Your task to perform on an android device: Open the phone app and click the voicemail tab. Image 0: 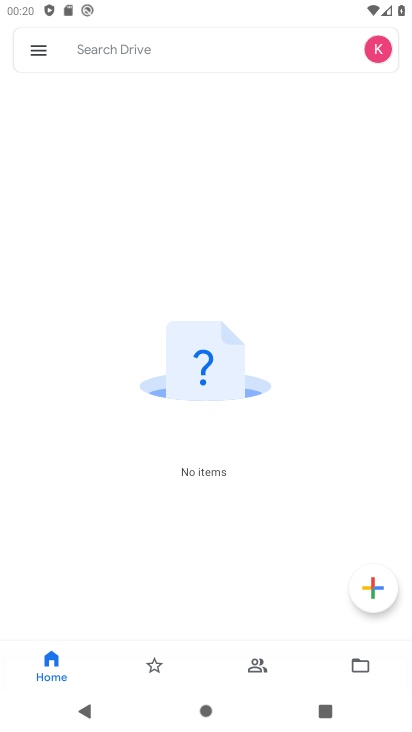
Step 0: press home button
Your task to perform on an android device: Open the phone app and click the voicemail tab. Image 1: 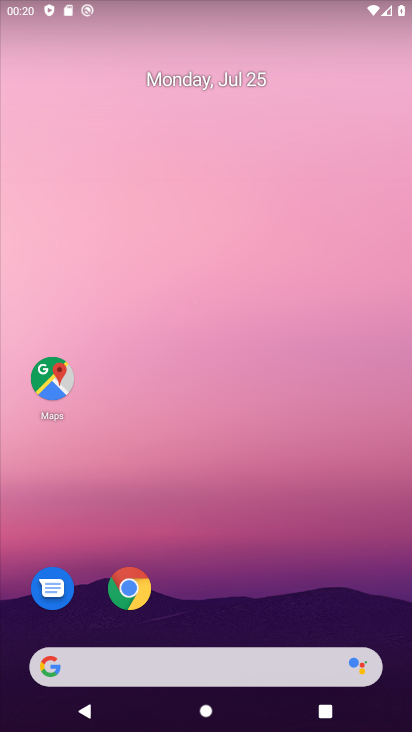
Step 1: drag from (198, 620) to (32, 654)
Your task to perform on an android device: Open the phone app and click the voicemail tab. Image 2: 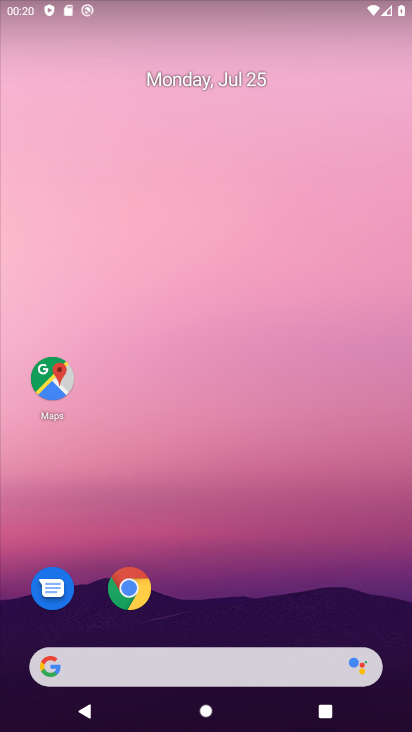
Step 2: drag from (225, 617) to (270, 31)
Your task to perform on an android device: Open the phone app and click the voicemail tab. Image 3: 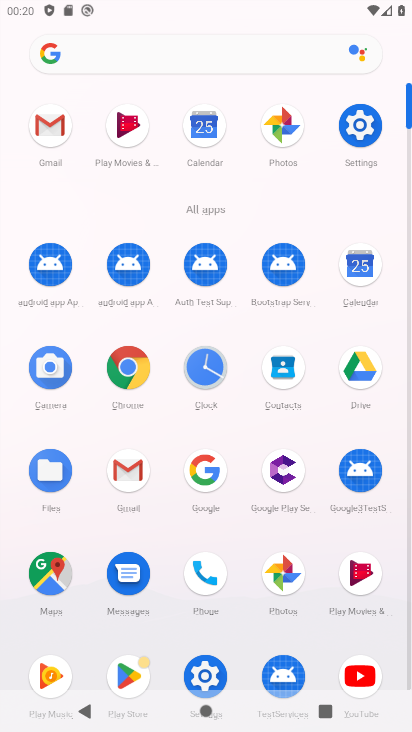
Step 3: click (199, 593)
Your task to perform on an android device: Open the phone app and click the voicemail tab. Image 4: 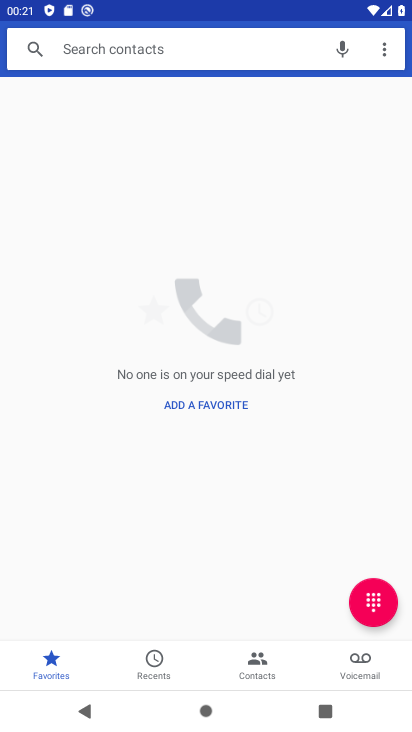
Step 4: click (360, 662)
Your task to perform on an android device: Open the phone app and click the voicemail tab. Image 5: 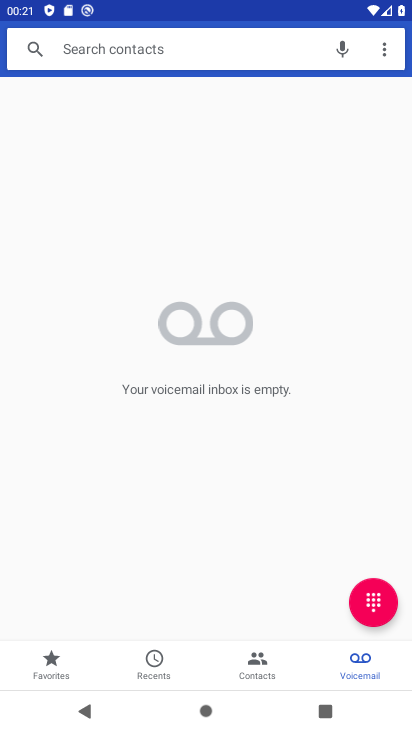
Step 5: task complete